Your task to perform on an android device: uninstall "Contacts" Image 0: 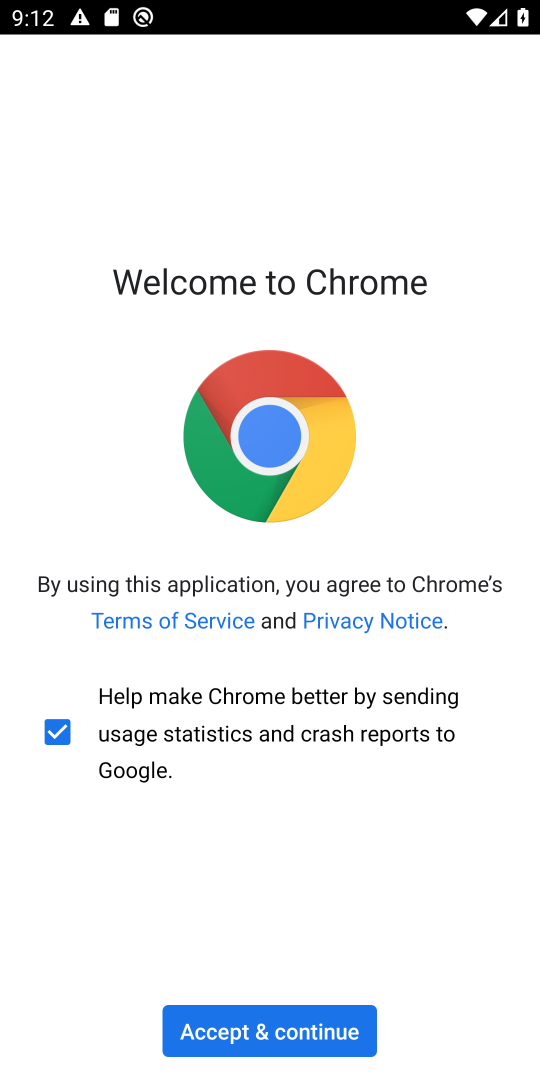
Step 0: press home button
Your task to perform on an android device: uninstall "Contacts" Image 1: 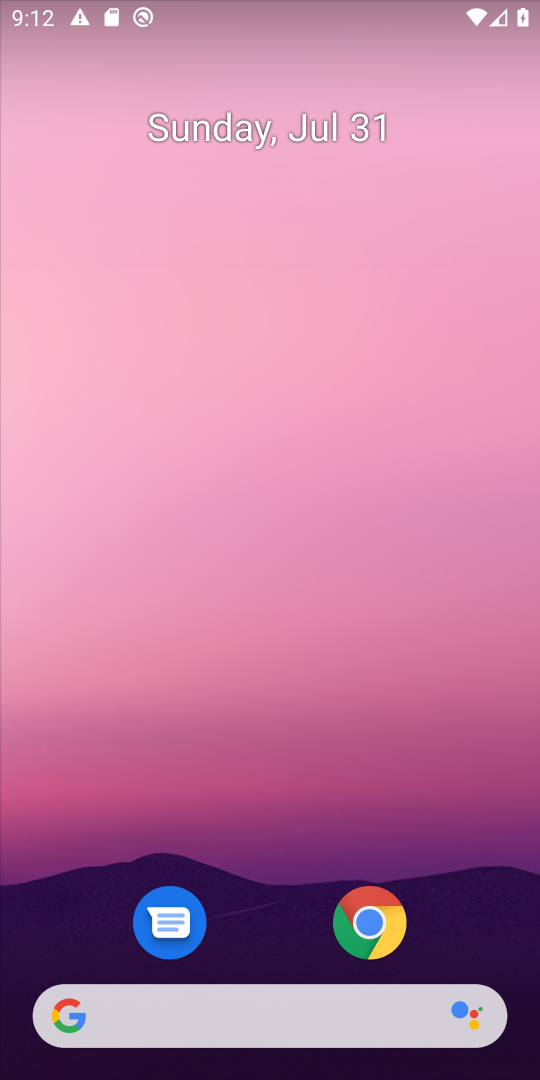
Step 1: drag from (286, 910) to (304, 152)
Your task to perform on an android device: uninstall "Contacts" Image 2: 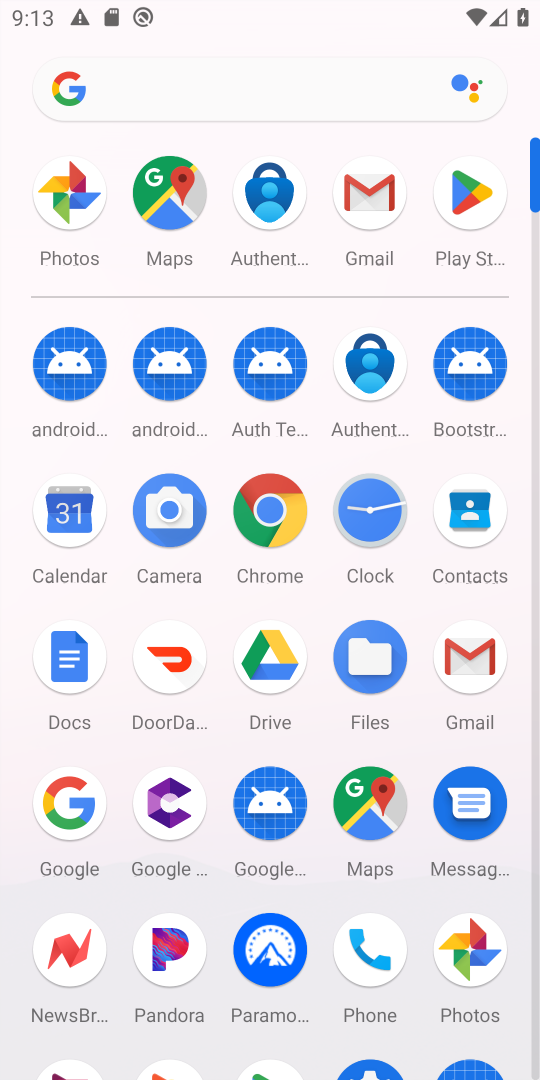
Step 2: click (467, 193)
Your task to perform on an android device: uninstall "Contacts" Image 3: 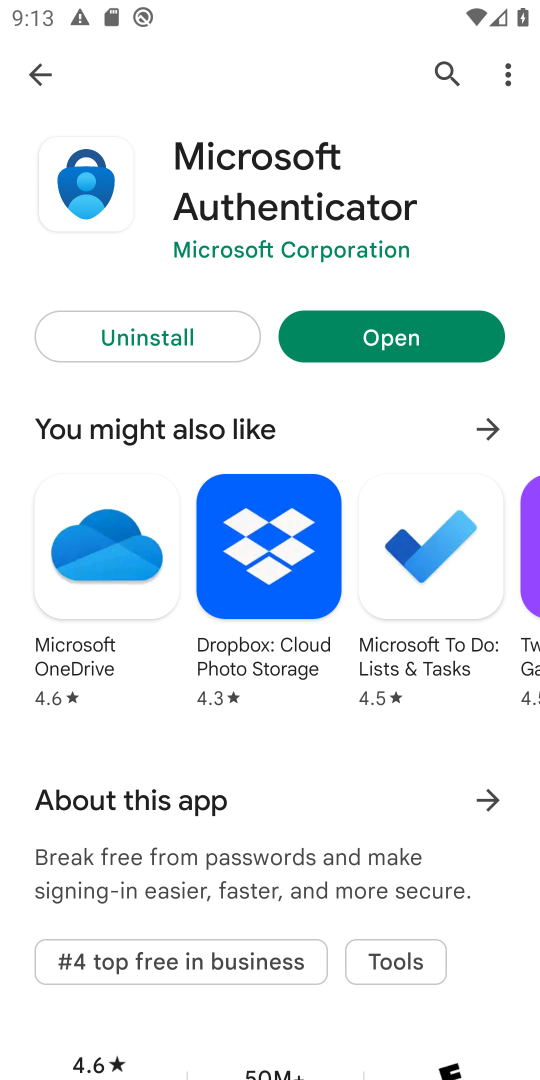
Step 3: click (440, 82)
Your task to perform on an android device: uninstall "Contacts" Image 4: 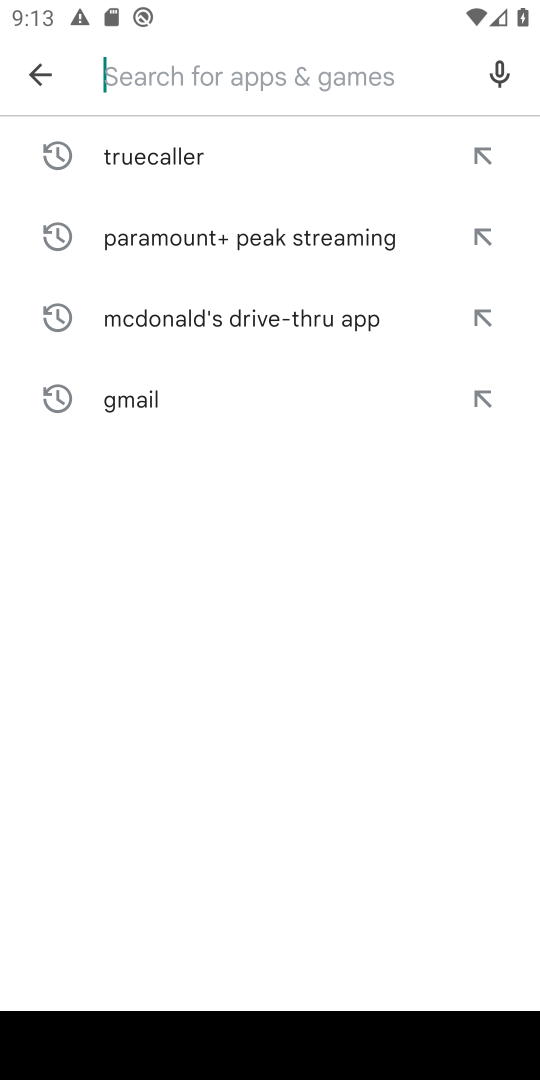
Step 4: type "Contacts"
Your task to perform on an android device: uninstall "Contacts" Image 5: 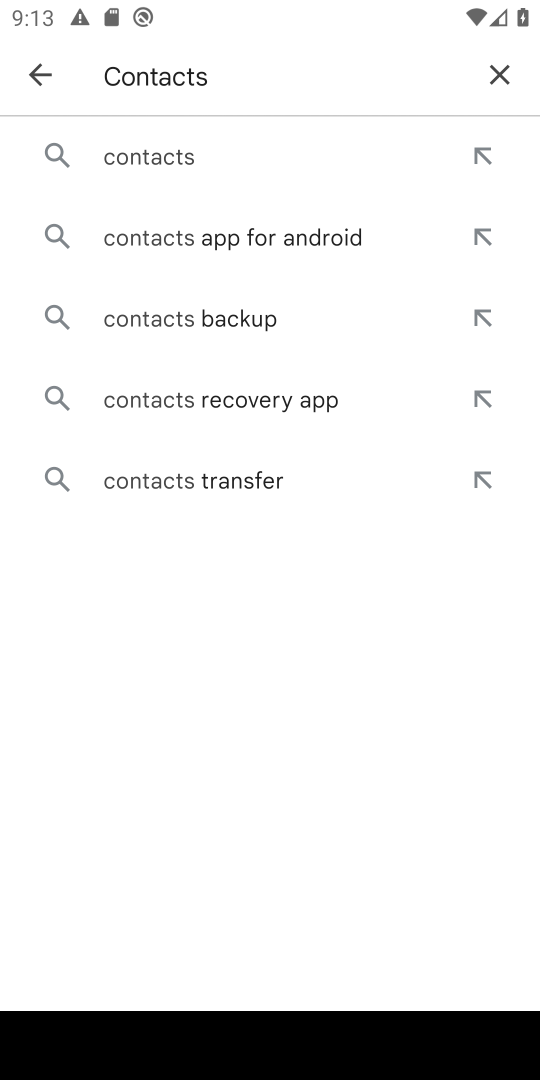
Step 5: click (130, 157)
Your task to perform on an android device: uninstall "Contacts" Image 6: 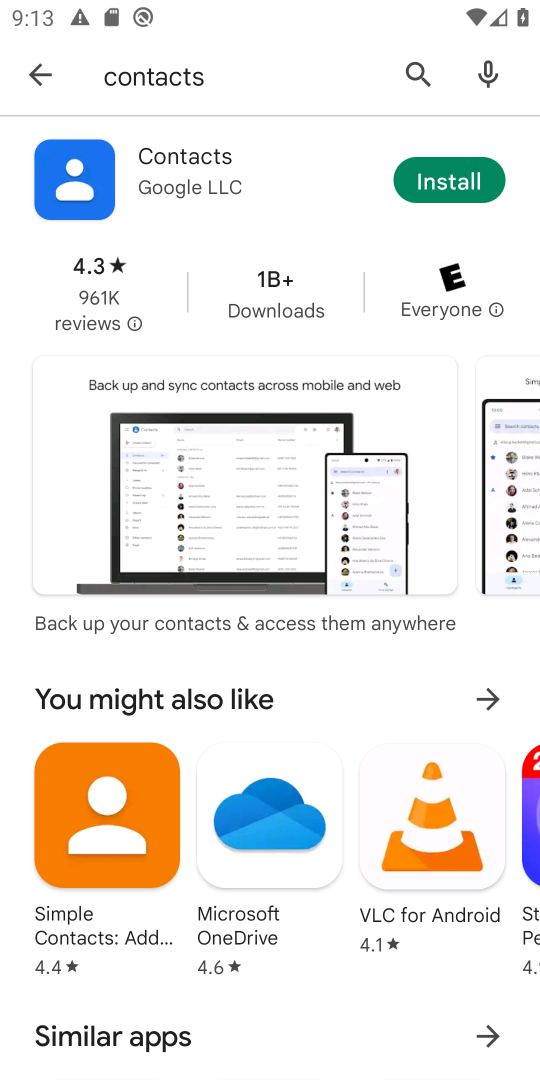
Step 6: click (164, 156)
Your task to perform on an android device: uninstall "Contacts" Image 7: 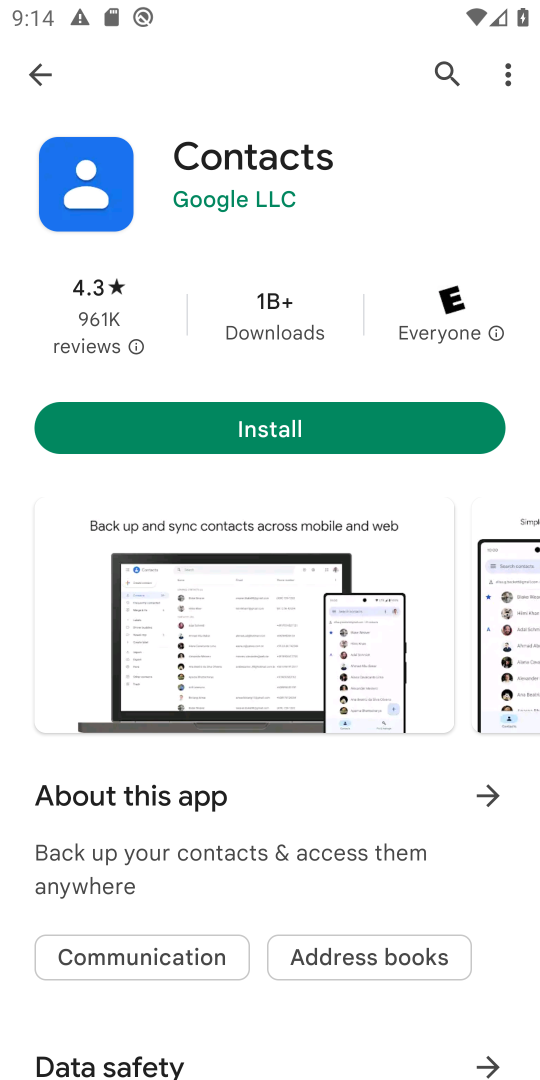
Step 7: task complete